Your task to perform on an android device: Open accessibility settings Image 0: 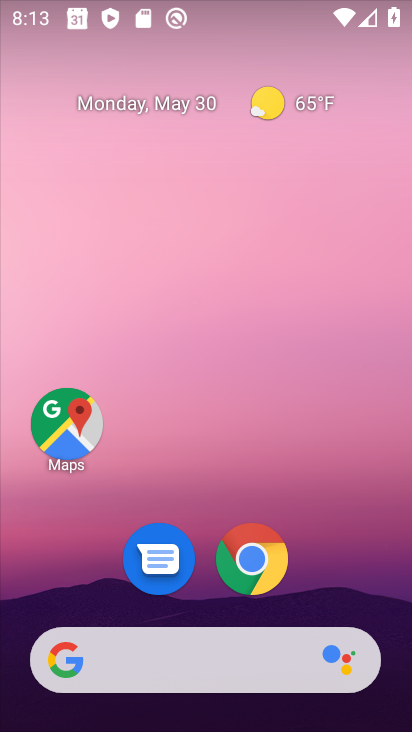
Step 0: drag from (153, 490) to (238, 12)
Your task to perform on an android device: Open accessibility settings Image 1: 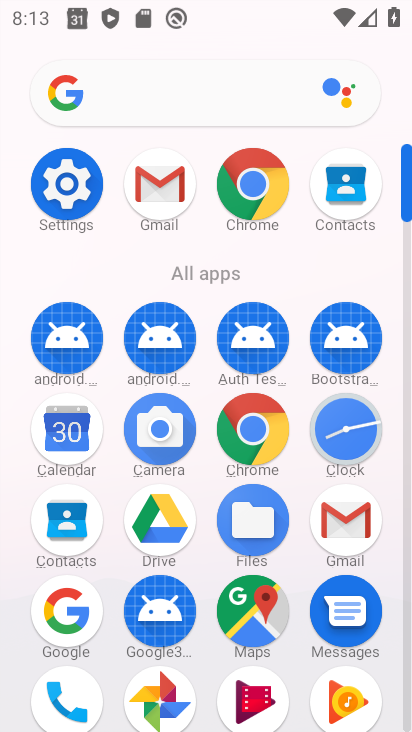
Step 1: click (53, 180)
Your task to perform on an android device: Open accessibility settings Image 2: 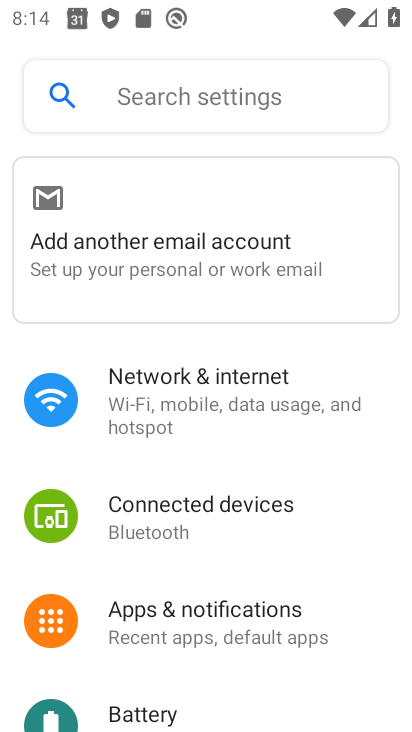
Step 2: drag from (188, 652) to (283, 176)
Your task to perform on an android device: Open accessibility settings Image 3: 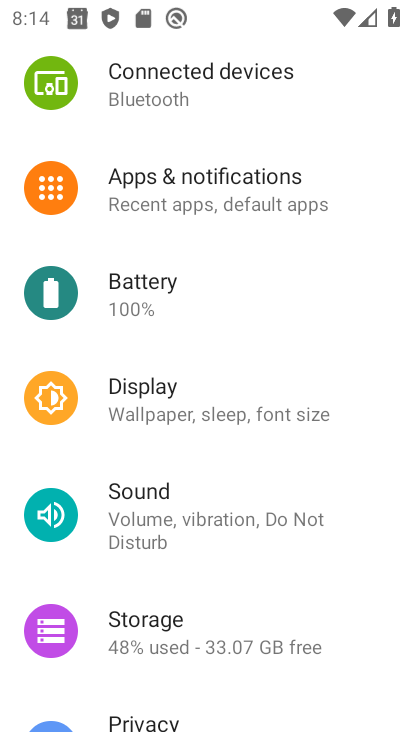
Step 3: drag from (226, 644) to (289, 277)
Your task to perform on an android device: Open accessibility settings Image 4: 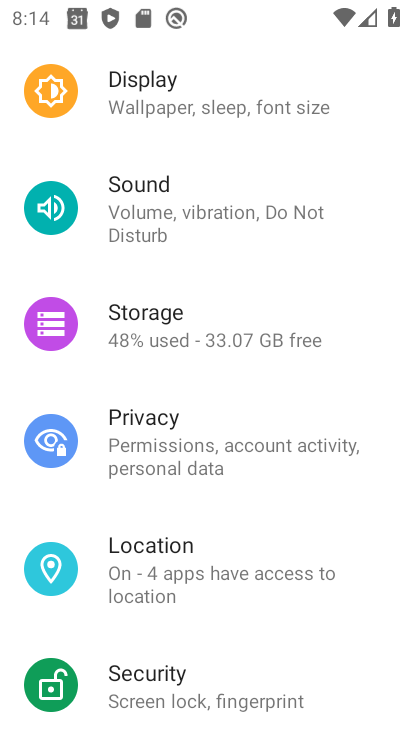
Step 4: drag from (170, 663) to (262, 245)
Your task to perform on an android device: Open accessibility settings Image 5: 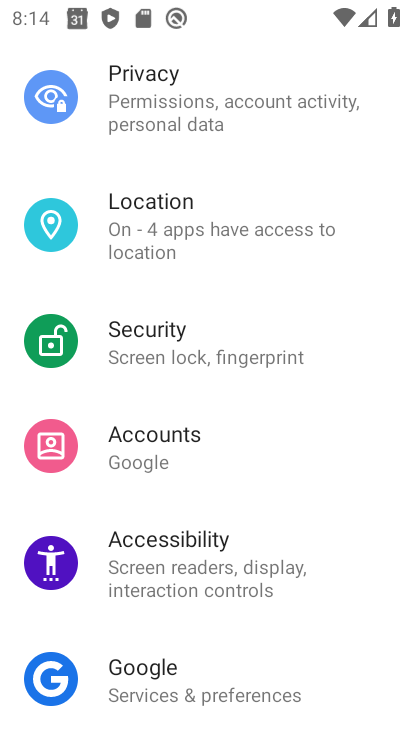
Step 5: click (145, 575)
Your task to perform on an android device: Open accessibility settings Image 6: 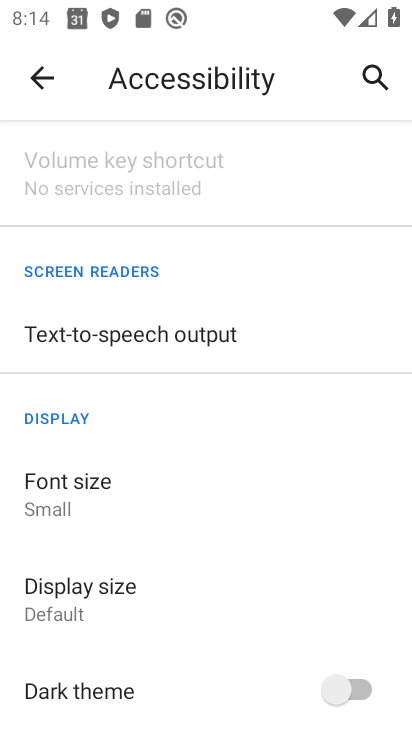
Step 6: task complete